Your task to perform on an android device: Is it going to rain this weekend? Image 0: 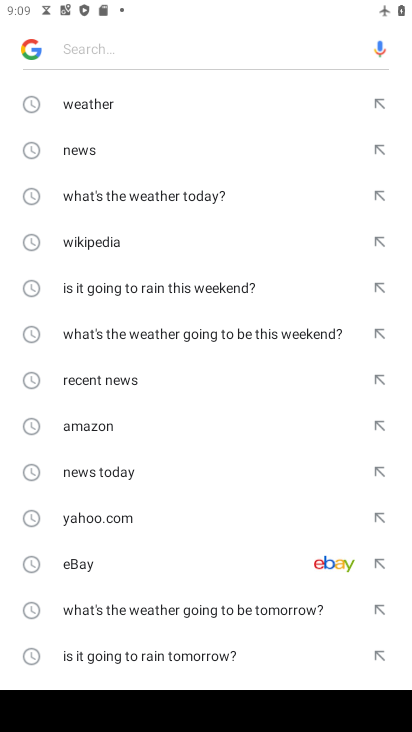
Step 0: click (130, 125)
Your task to perform on an android device: Is it going to rain this weekend? Image 1: 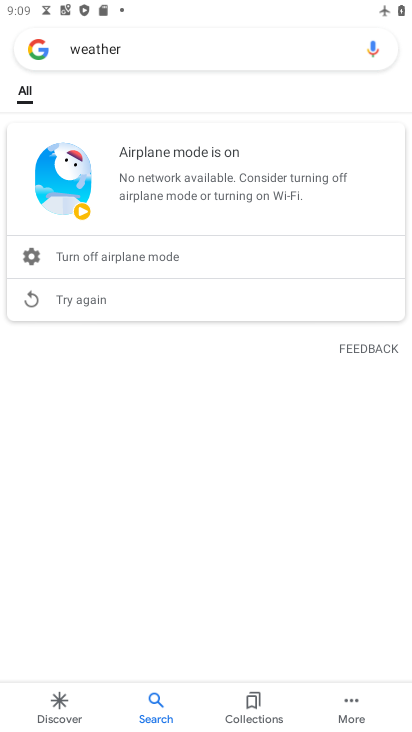
Step 1: task complete